Your task to perform on an android device: Open the Play Movies app and select the watchlist tab. Image 0: 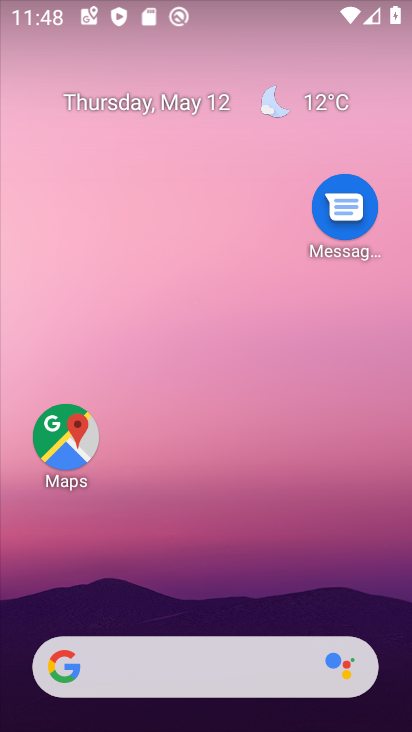
Step 0: press home button
Your task to perform on an android device: Open the Play Movies app and select the watchlist tab. Image 1: 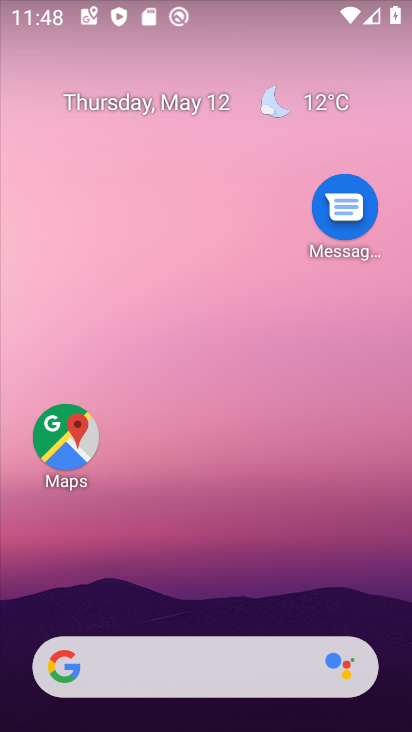
Step 1: drag from (285, 557) to (283, 45)
Your task to perform on an android device: Open the Play Movies app and select the watchlist tab. Image 2: 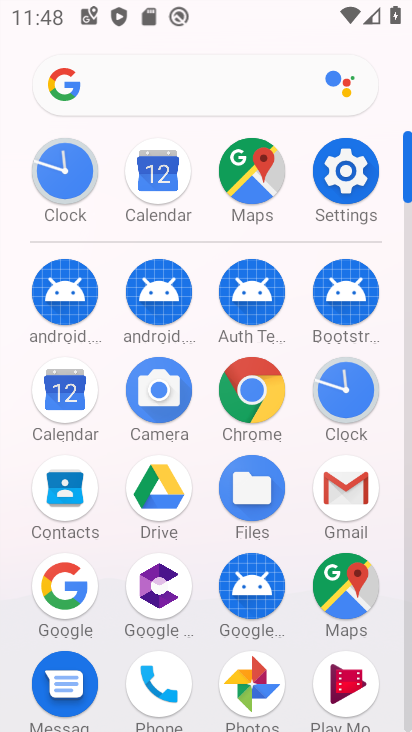
Step 2: click (342, 679)
Your task to perform on an android device: Open the Play Movies app and select the watchlist tab. Image 3: 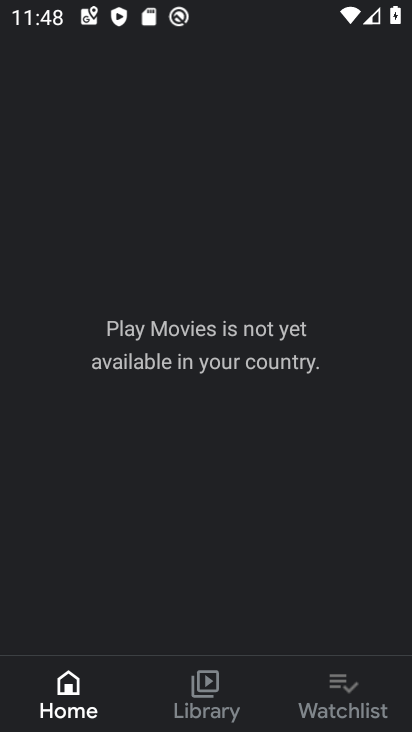
Step 3: click (370, 700)
Your task to perform on an android device: Open the Play Movies app and select the watchlist tab. Image 4: 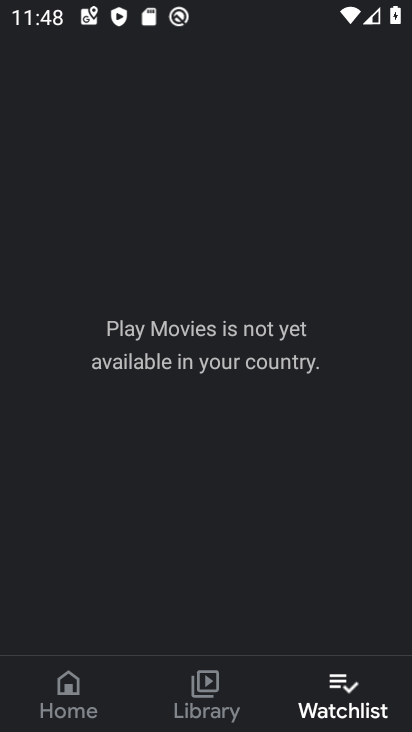
Step 4: task complete